Your task to perform on an android device: What is the recent news? Image 0: 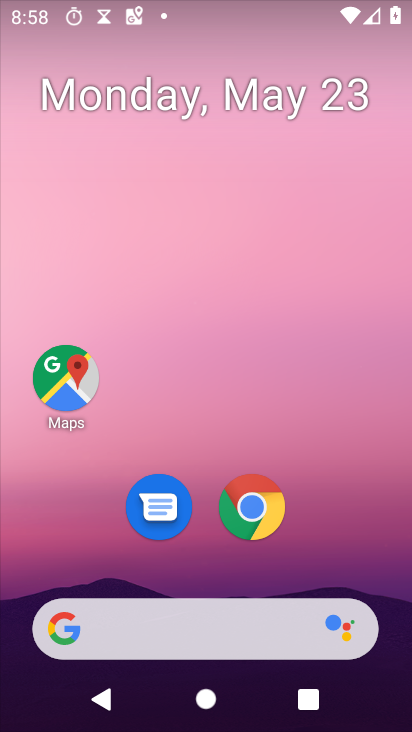
Step 0: drag from (360, 519) to (407, 52)
Your task to perform on an android device: What is the recent news? Image 1: 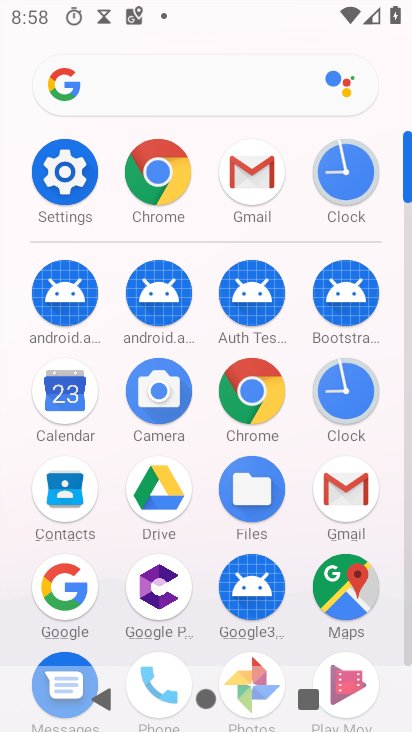
Step 1: click (167, 196)
Your task to perform on an android device: What is the recent news? Image 2: 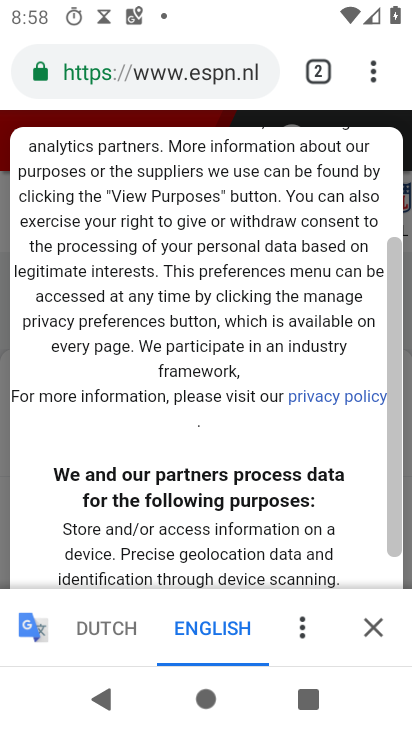
Step 2: drag from (369, 68) to (128, 137)
Your task to perform on an android device: What is the recent news? Image 3: 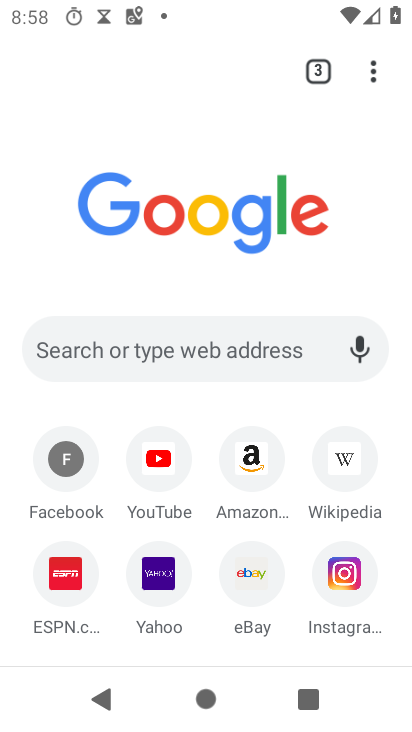
Step 3: drag from (394, 606) to (326, 142)
Your task to perform on an android device: What is the recent news? Image 4: 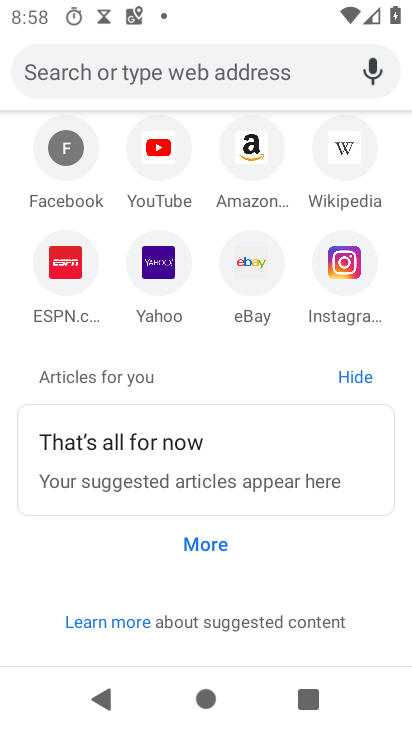
Step 4: click (186, 540)
Your task to perform on an android device: What is the recent news? Image 5: 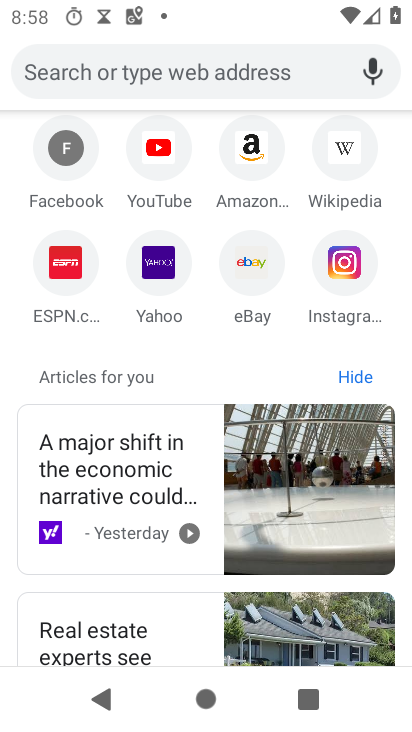
Step 5: task complete